Your task to perform on an android device: turn off javascript in the chrome app Image 0: 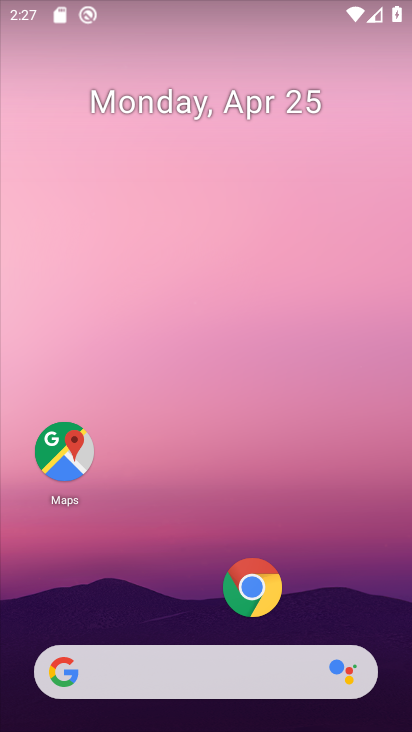
Step 0: click (248, 581)
Your task to perform on an android device: turn off javascript in the chrome app Image 1: 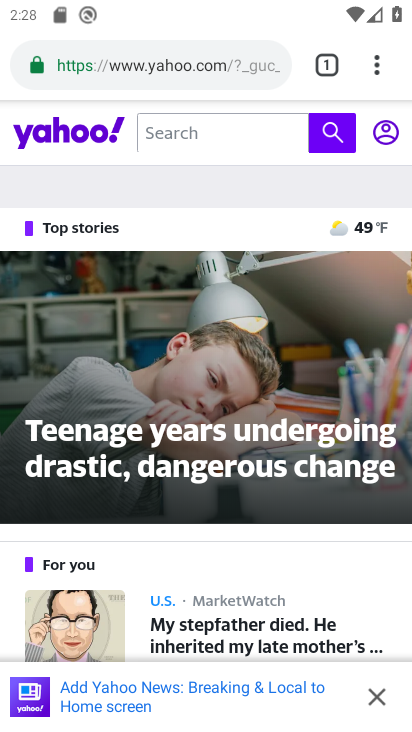
Step 1: click (376, 60)
Your task to perform on an android device: turn off javascript in the chrome app Image 2: 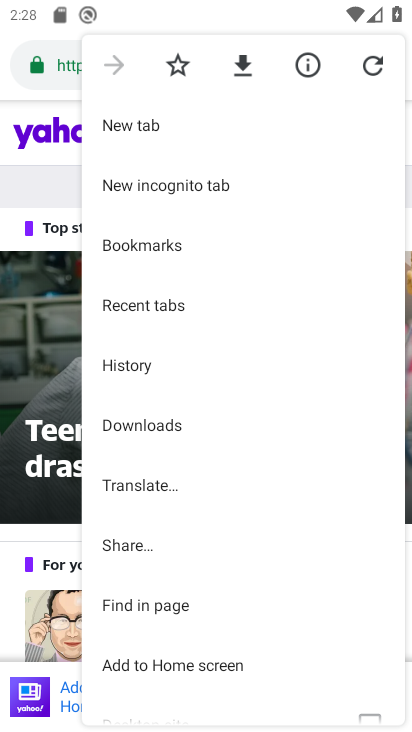
Step 2: drag from (208, 643) to (201, 147)
Your task to perform on an android device: turn off javascript in the chrome app Image 3: 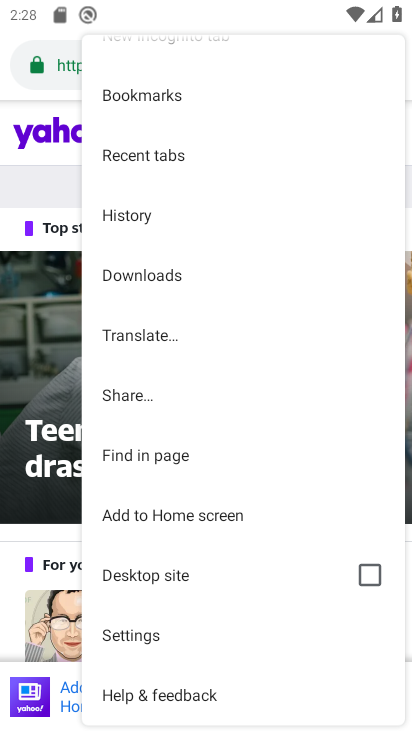
Step 3: click (166, 634)
Your task to perform on an android device: turn off javascript in the chrome app Image 4: 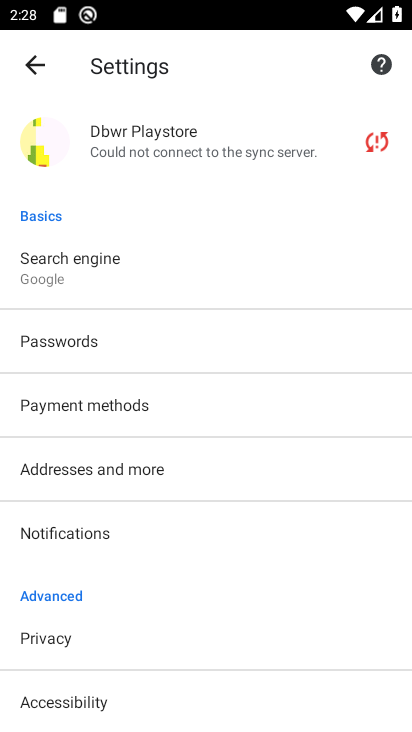
Step 4: drag from (173, 655) to (159, 187)
Your task to perform on an android device: turn off javascript in the chrome app Image 5: 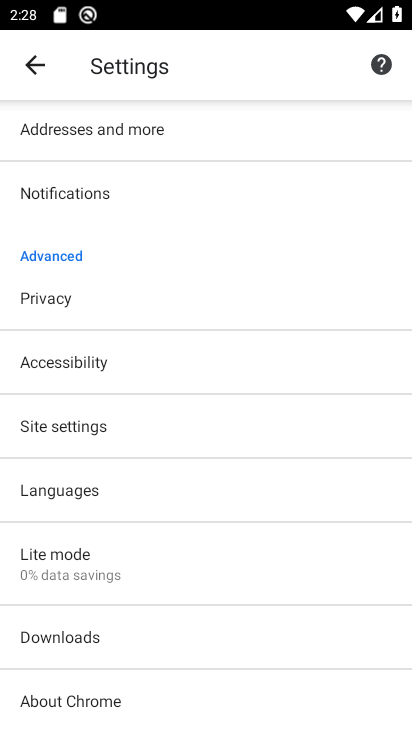
Step 5: click (114, 422)
Your task to perform on an android device: turn off javascript in the chrome app Image 6: 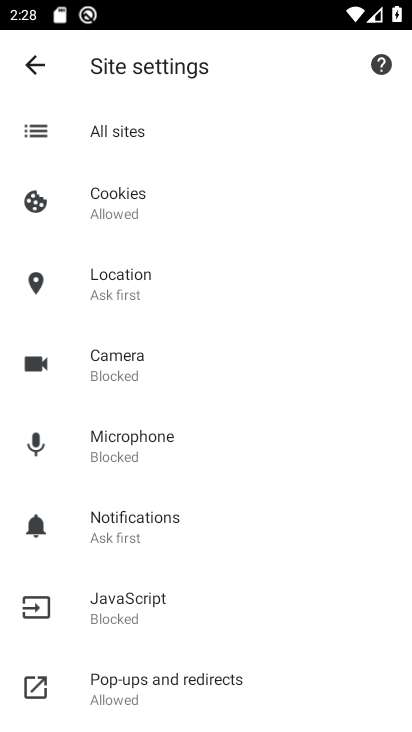
Step 6: click (179, 601)
Your task to perform on an android device: turn off javascript in the chrome app Image 7: 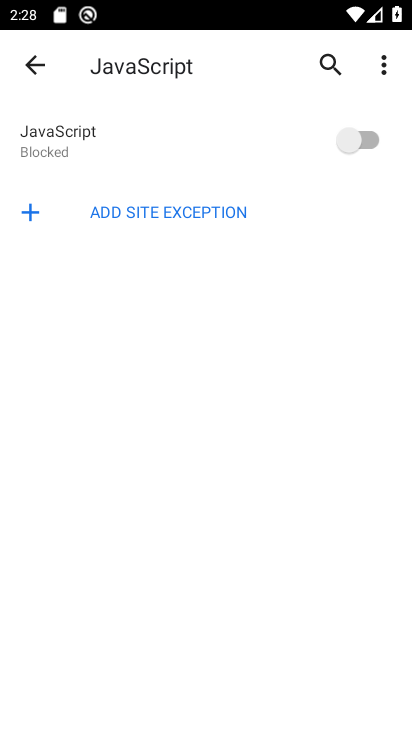
Step 7: task complete